Your task to perform on an android device: Open Google Chrome and click the shortcut for Amazon.com Image 0: 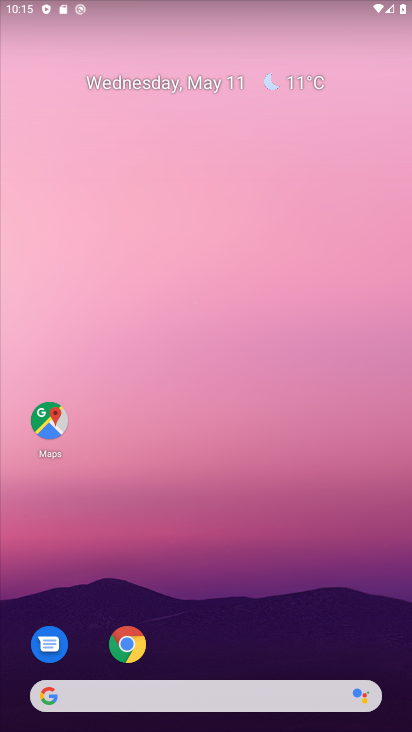
Step 0: press home button
Your task to perform on an android device: Open Google Chrome and click the shortcut for Amazon.com Image 1: 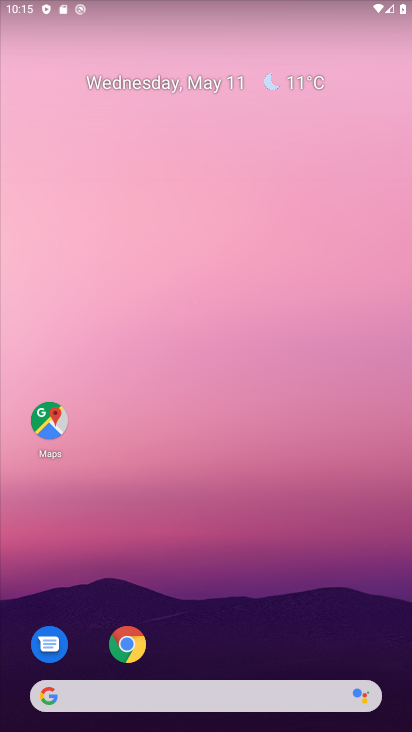
Step 1: click (127, 638)
Your task to perform on an android device: Open Google Chrome and click the shortcut for Amazon.com Image 2: 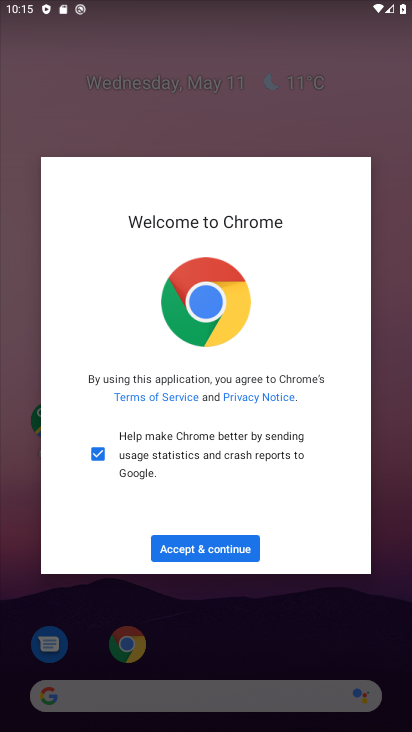
Step 2: click (204, 546)
Your task to perform on an android device: Open Google Chrome and click the shortcut for Amazon.com Image 3: 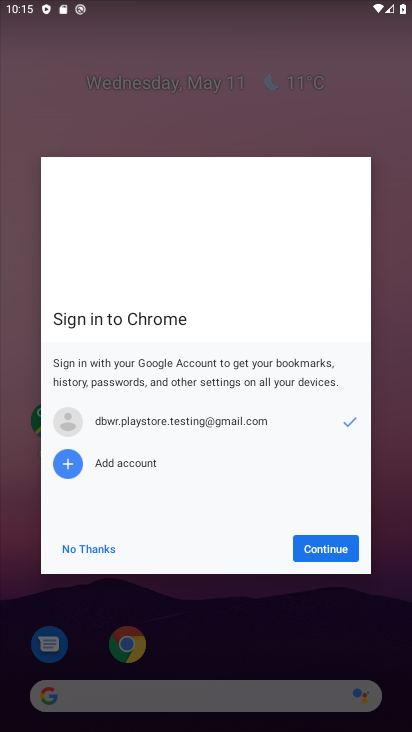
Step 3: click (338, 543)
Your task to perform on an android device: Open Google Chrome and click the shortcut for Amazon.com Image 4: 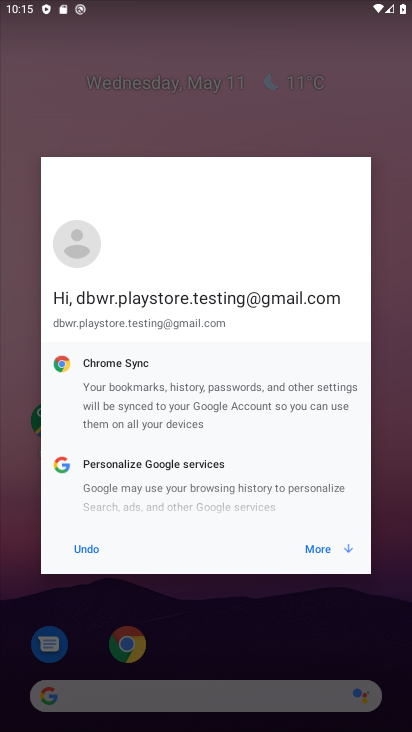
Step 4: click (330, 547)
Your task to perform on an android device: Open Google Chrome and click the shortcut for Amazon.com Image 5: 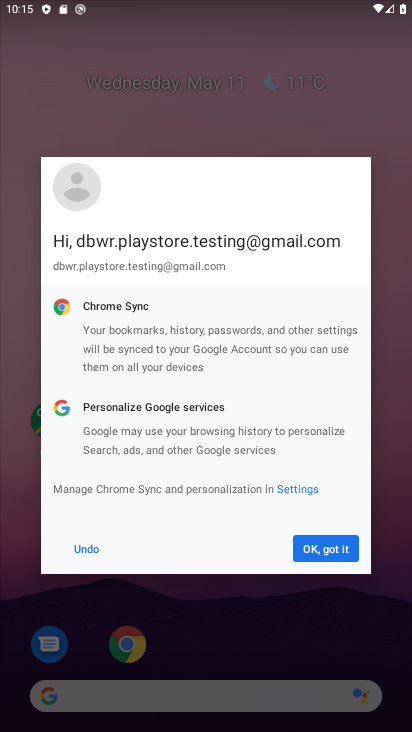
Step 5: click (330, 547)
Your task to perform on an android device: Open Google Chrome and click the shortcut for Amazon.com Image 6: 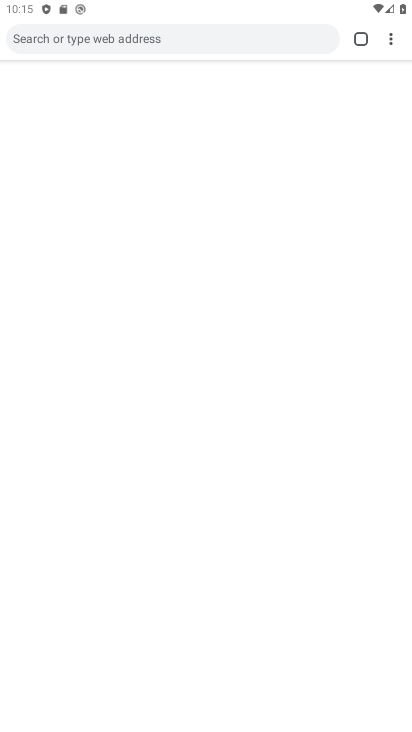
Step 6: click (330, 547)
Your task to perform on an android device: Open Google Chrome and click the shortcut for Amazon.com Image 7: 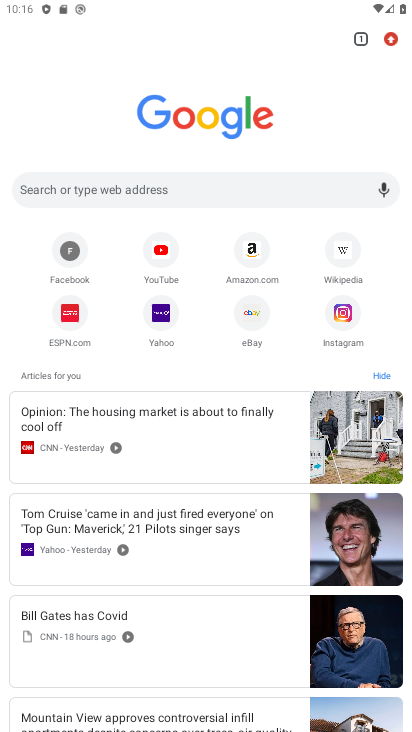
Step 7: click (247, 249)
Your task to perform on an android device: Open Google Chrome and click the shortcut for Amazon.com Image 8: 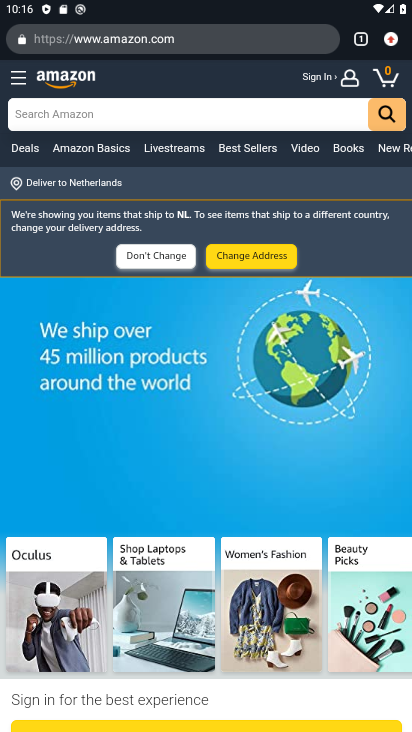
Step 8: task complete